Your task to perform on an android device: Search for vegetarian restaurants on Maps Image 0: 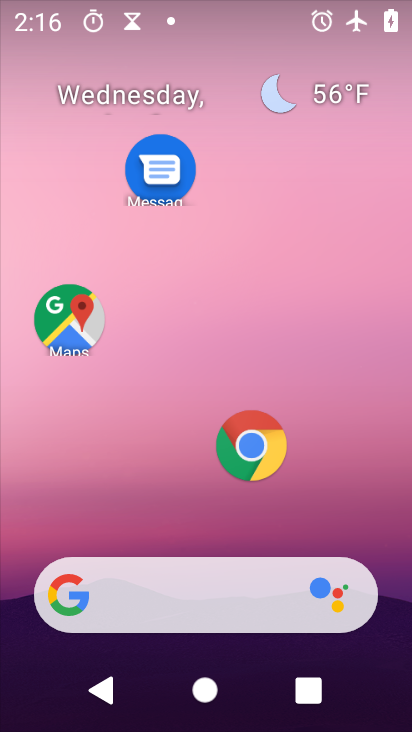
Step 0: drag from (138, 543) to (266, 162)
Your task to perform on an android device: Search for vegetarian restaurants on Maps Image 1: 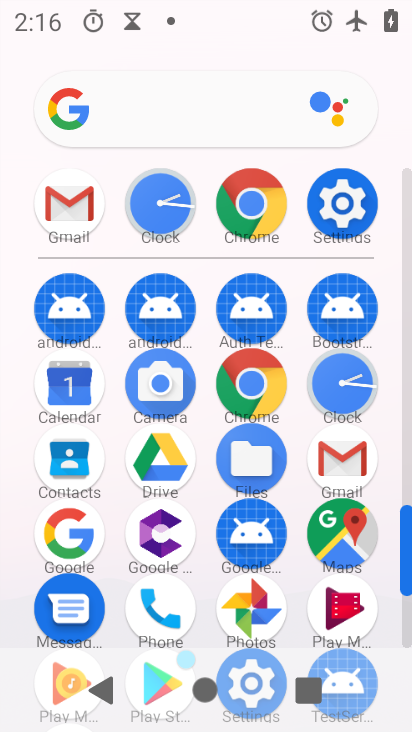
Step 1: drag from (210, 270) to (202, 134)
Your task to perform on an android device: Search for vegetarian restaurants on Maps Image 2: 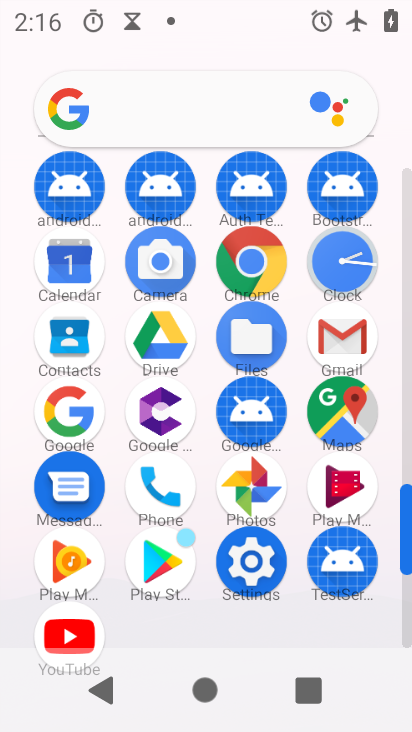
Step 2: click (364, 421)
Your task to perform on an android device: Search for vegetarian restaurants on Maps Image 3: 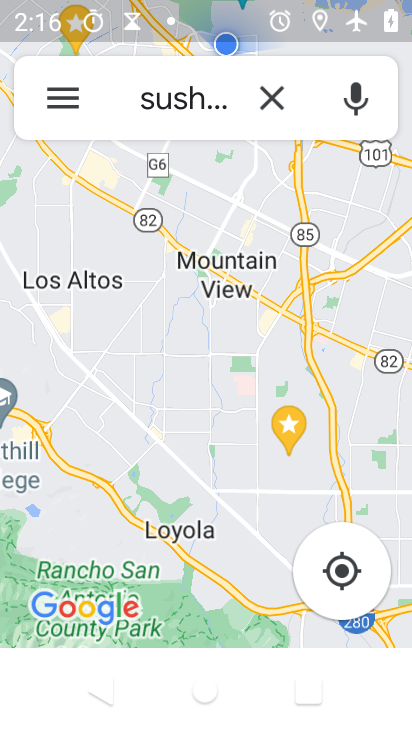
Step 3: click (257, 112)
Your task to perform on an android device: Search for vegetarian restaurants on Maps Image 4: 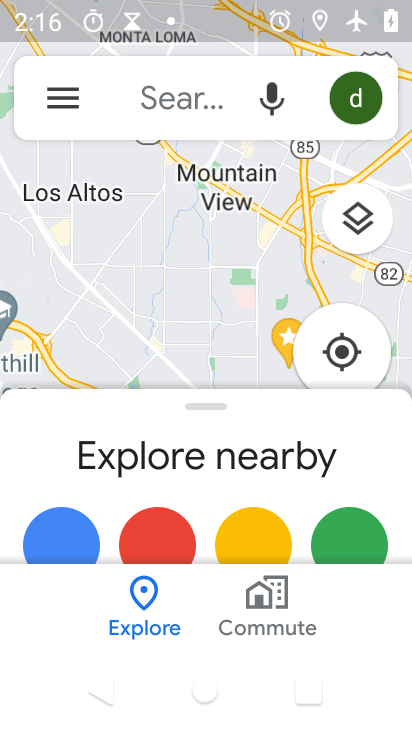
Step 4: click (199, 107)
Your task to perform on an android device: Search for vegetarian restaurants on Maps Image 5: 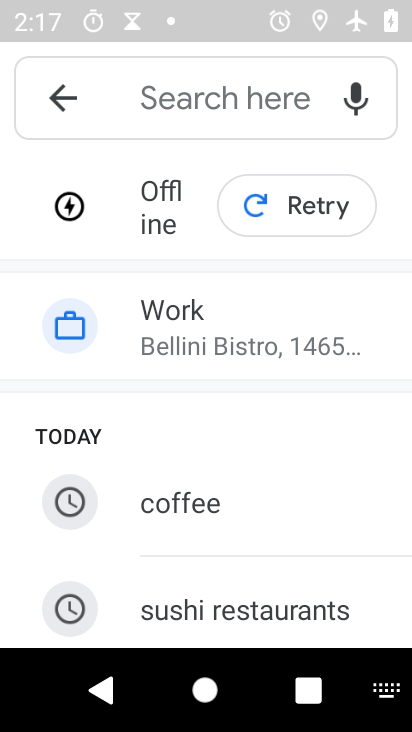
Step 5: type "vegetarian restaurants"
Your task to perform on an android device: Search for vegetarian restaurants on Maps Image 6: 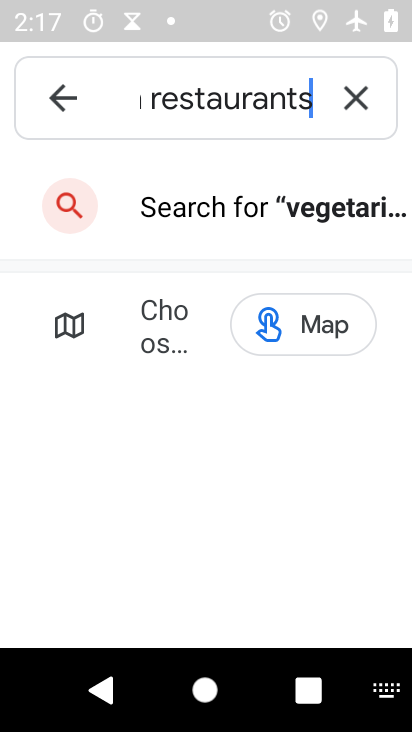
Step 6: type ""
Your task to perform on an android device: Search for vegetarian restaurants on Maps Image 7: 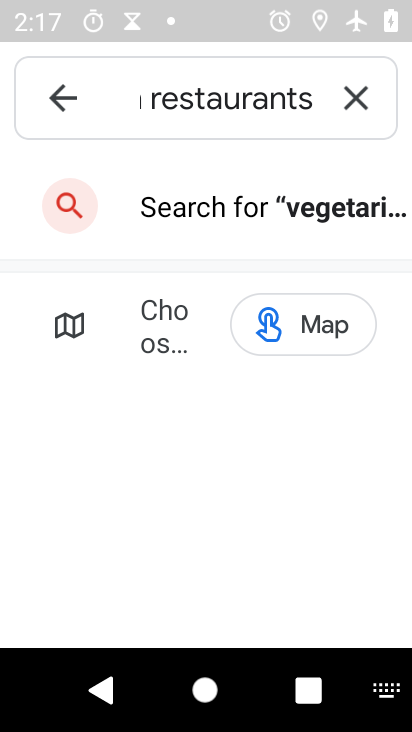
Step 7: click (288, 228)
Your task to perform on an android device: Search for vegetarian restaurants on Maps Image 8: 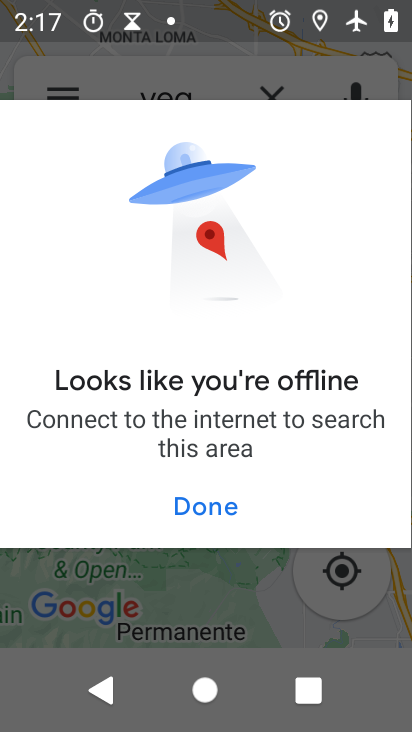
Step 8: click (209, 514)
Your task to perform on an android device: Search for vegetarian restaurants on Maps Image 9: 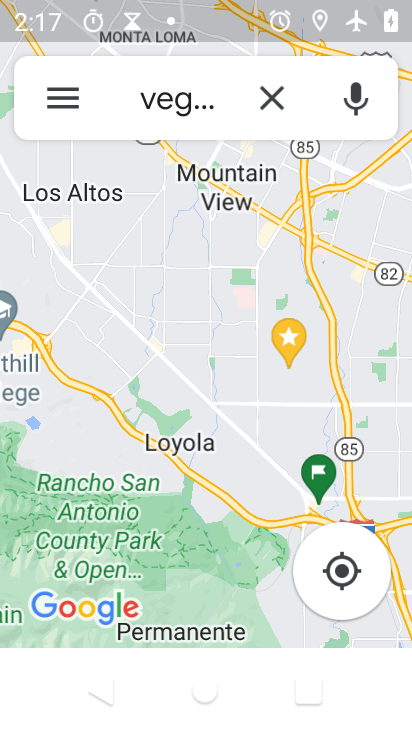
Step 9: task complete